Your task to perform on an android device: move a message to another label in the gmail app Image 0: 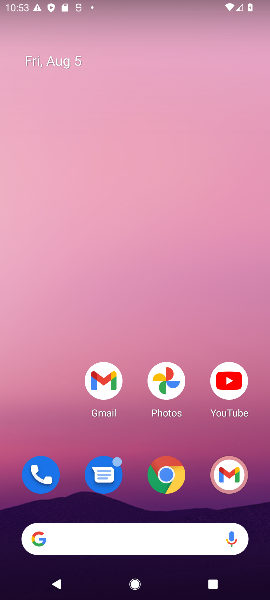
Step 0: drag from (132, 440) to (141, 19)
Your task to perform on an android device: move a message to another label in the gmail app Image 1: 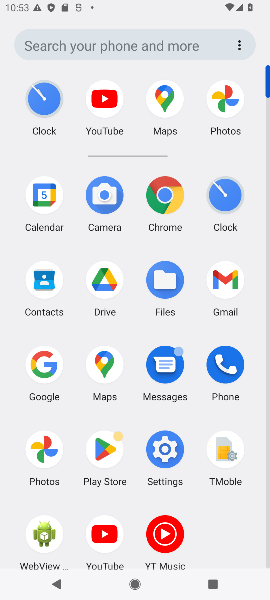
Step 1: click (230, 292)
Your task to perform on an android device: move a message to another label in the gmail app Image 2: 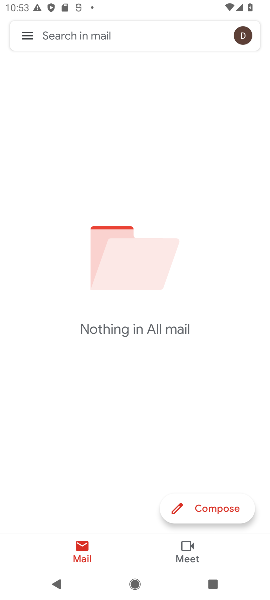
Step 2: click (25, 28)
Your task to perform on an android device: move a message to another label in the gmail app Image 3: 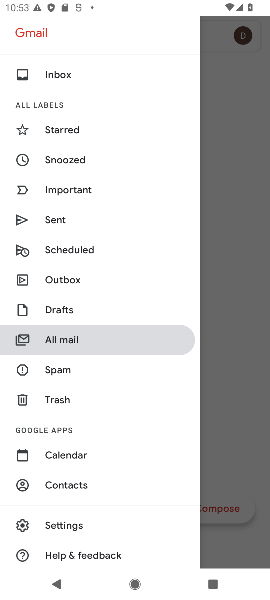
Step 3: drag from (56, 82) to (57, 222)
Your task to perform on an android device: move a message to another label in the gmail app Image 4: 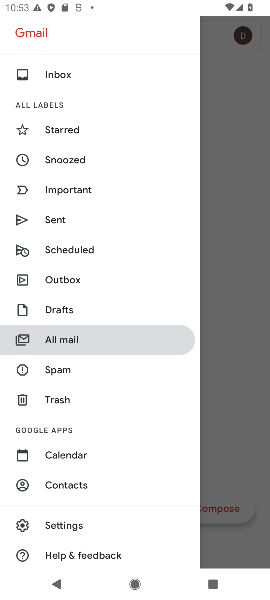
Step 4: click (49, 77)
Your task to perform on an android device: move a message to another label in the gmail app Image 5: 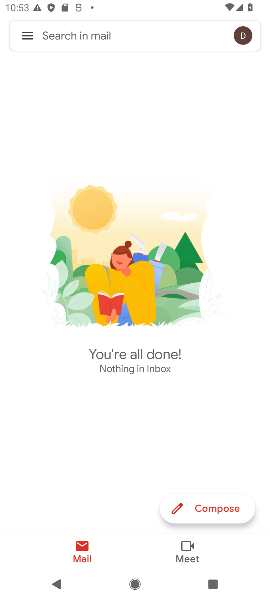
Step 5: task complete